Your task to perform on an android device: turn off picture-in-picture Image 0: 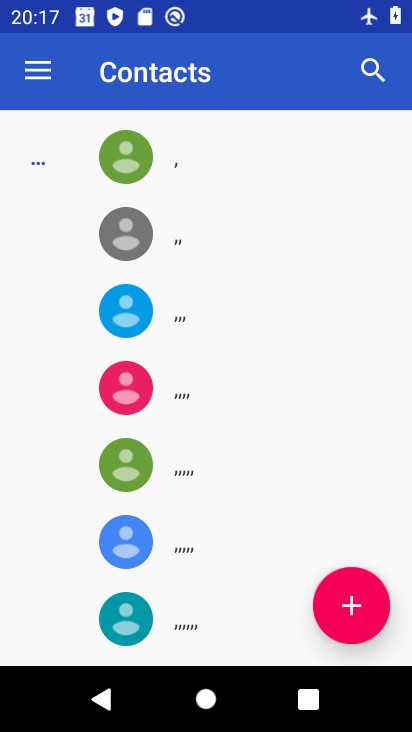
Step 0: press home button
Your task to perform on an android device: turn off picture-in-picture Image 1: 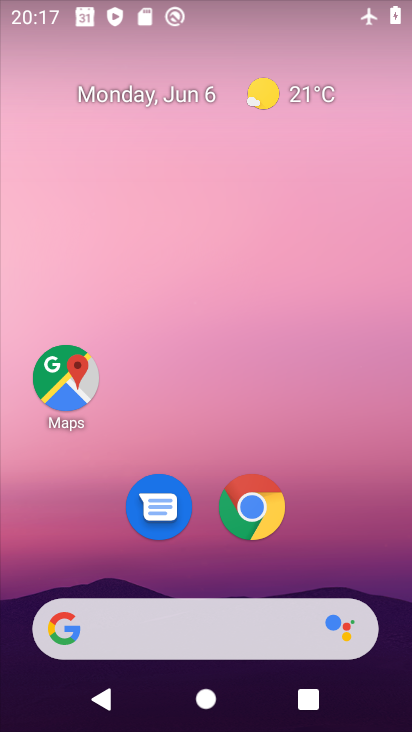
Step 1: drag from (211, 580) to (85, 0)
Your task to perform on an android device: turn off picture-in-picture Image 2: 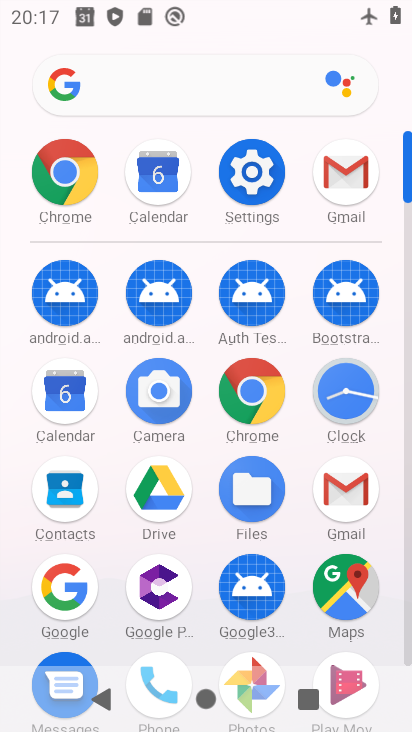
Step 2: click (244, 181)
Your task to perform on an android device: turn off picture-in-picture Image 3: 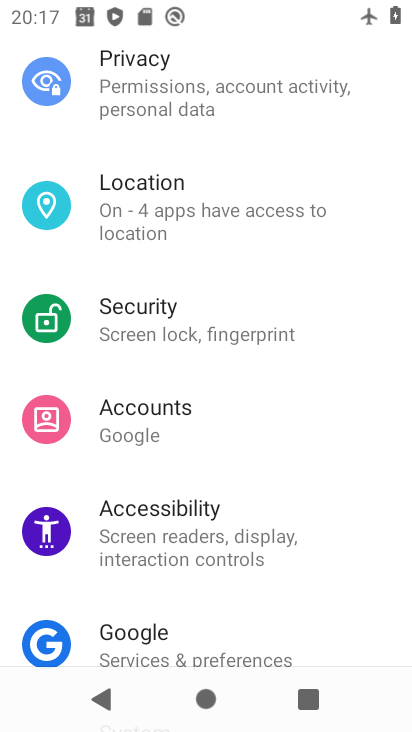
Step 3: drag from (161, 197) to (162, 528)
Your task to perform on an android device: turn off picture-in-picture Image 4: 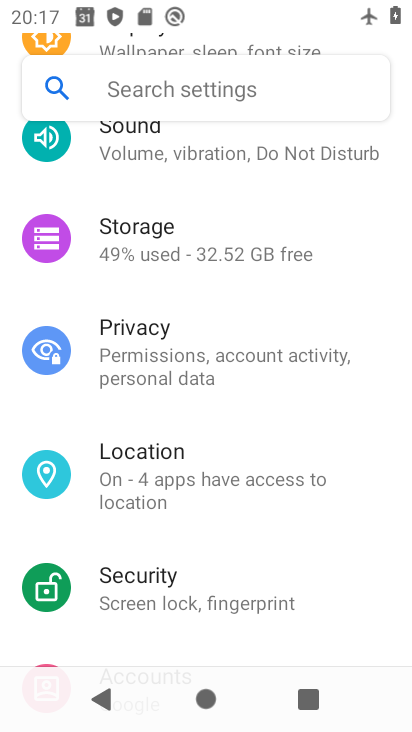
Step 4: drag from (183, 434) to (178, 665)
Your task to perform on an android device: turn off picture-in-picture Image 5: 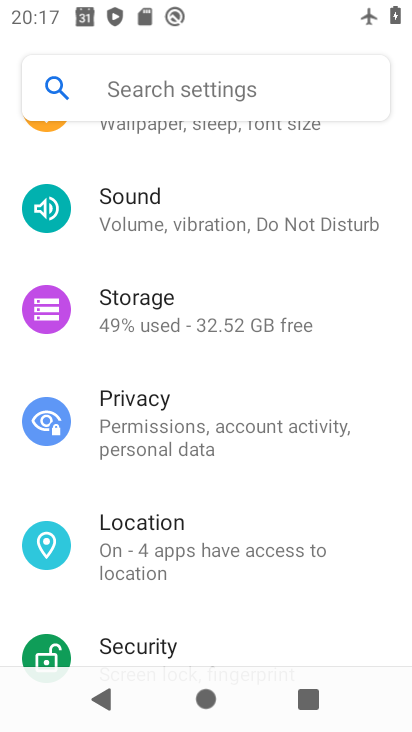
Step 5: drag from (127, 204) to (160, 574)
Your task to perform on an android device: turn off picture-in-picture Image 6: 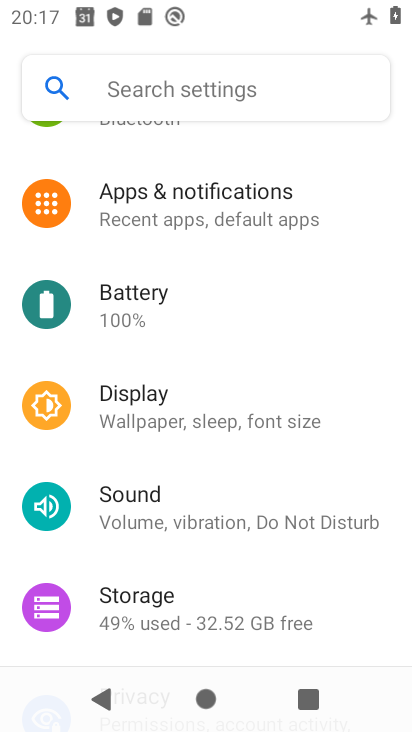
Step 6: drag from (216, 280) to (211, 624)
Your task to perform on an android device: turn off picture-in-picture Image 7: 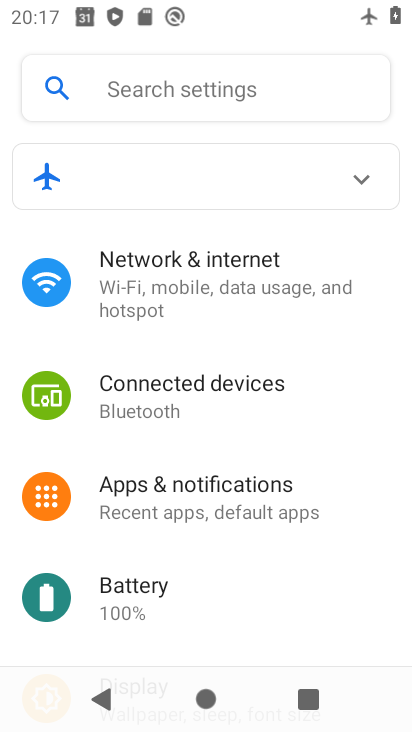
Step 7: drag from (148, 575) to (199, 68)
Your task to perform on an android device: turn off picture-in-picture Image 8: 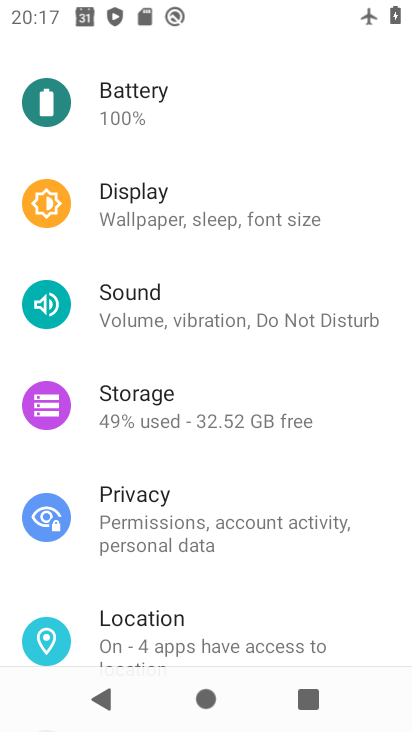
Step 8: drag from (184, 577) to (197, 121)
Your task to perform on an android device: turn off picture-in-picture Image 9: 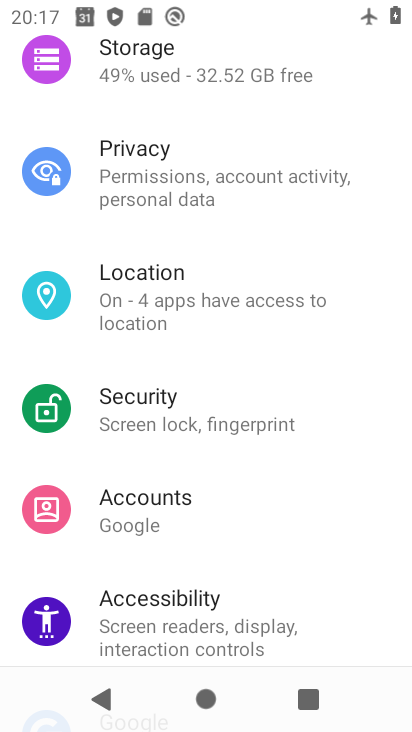
Step 9: drag from (176, 222) to (135, 719)
Your task to perform on an android device: turn off picture-in-picture Image 10: 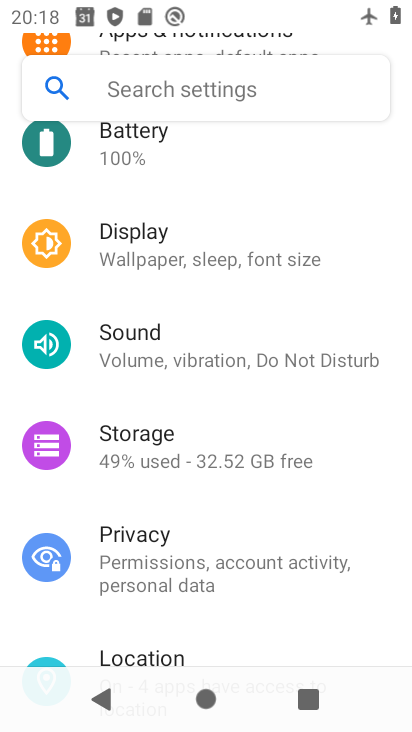
Step 10: drag from (65, 134) to (78, 572)
Your task to perform on an android device: turn off picture-in-picture Image 11: 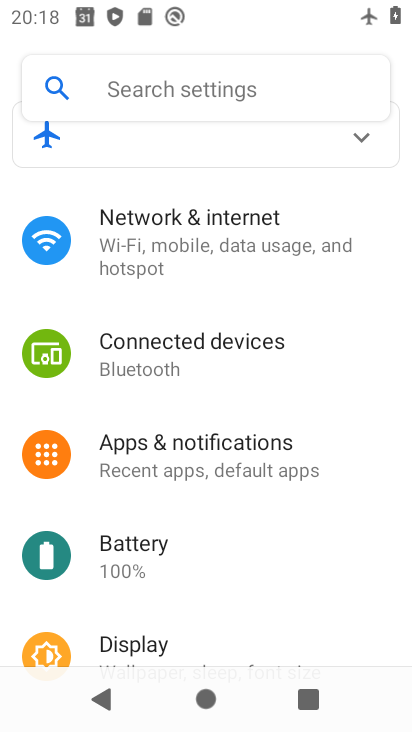
Step 11: click (150, 449)
Your task to perform on an android device: turn off picture-in-picture Image 12: 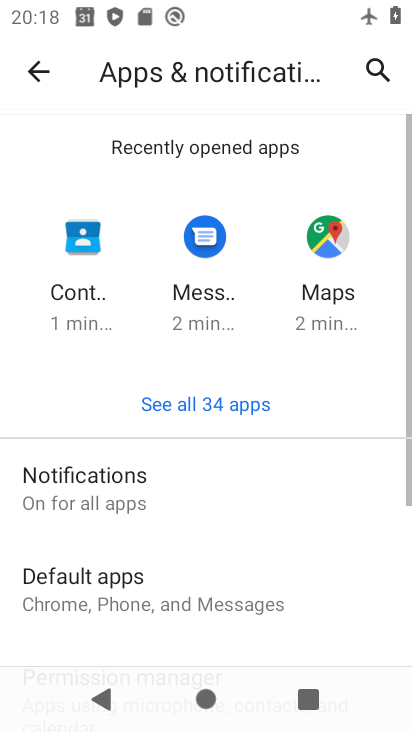
Step 12: drag from (106, 544) to (126, 158)
Your task to perform on an android device: turn off picture-in-picture Image 13: 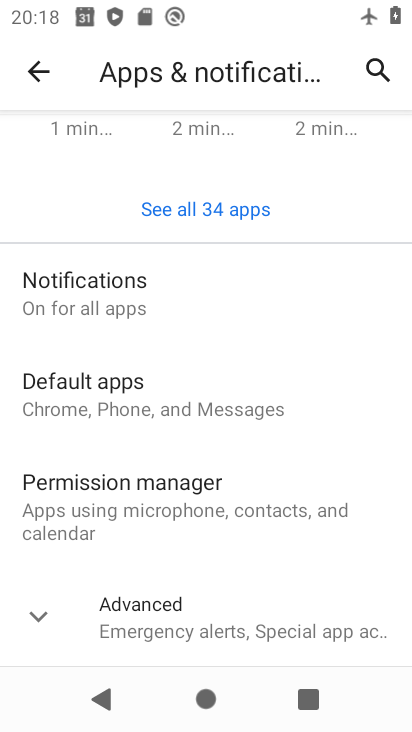
Step 13: click (103, 633)
Your task to perform on an android device: turn off picture-in-picture Image 14: 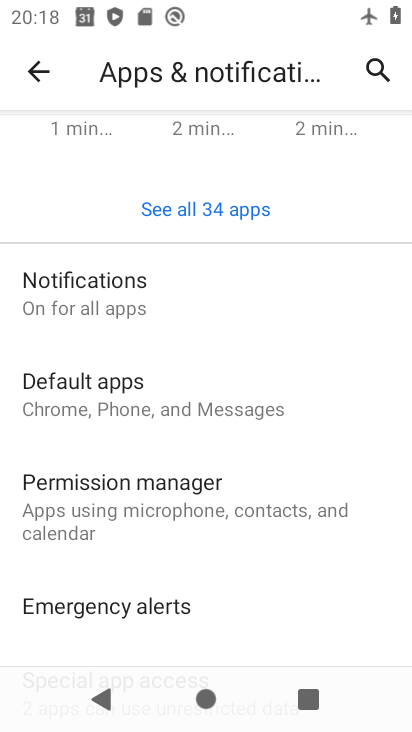
Step 14: drag from (129, 593) to (91, 234)
Your task to perform on an android device: turn off picture-in-picture Image 15: 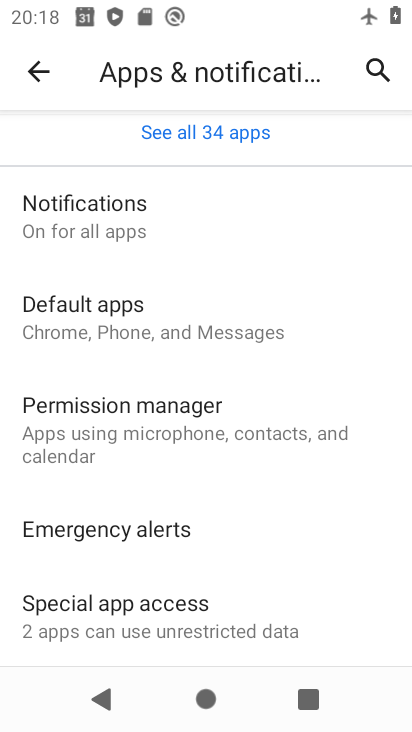
Step 15: click (94, 608)
Your task to perform on an android device: turn off picture-in-picture Image 16: 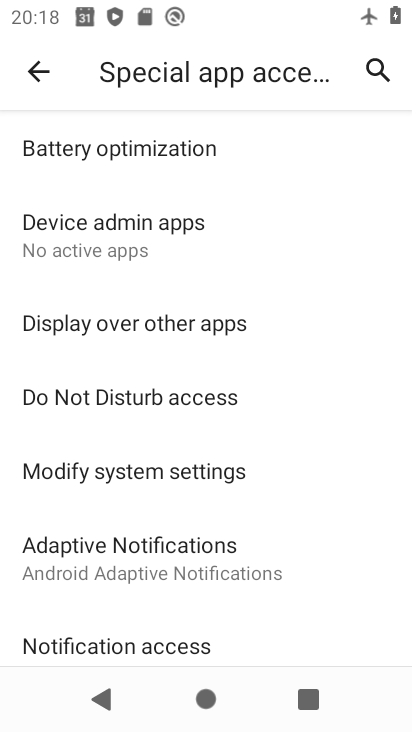
Step 16: drag from (166, 557) to (192, 209)
Your task to perform on an android device: turn off picture-in-picture Image 17: 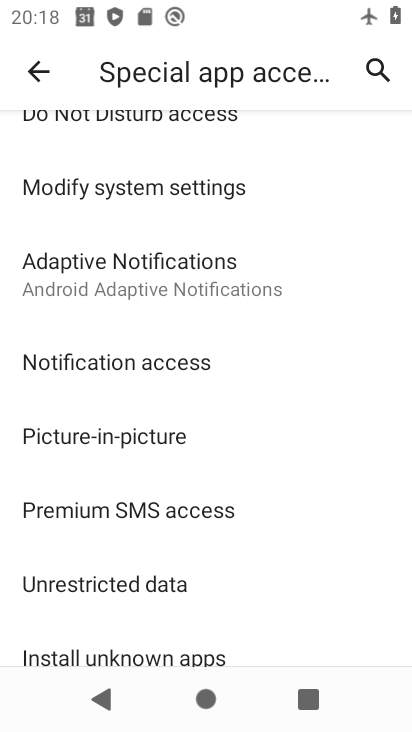
Step 17: click (110, 438)
Your task to perform on an android device: turn off picture-in-picture Image 18: 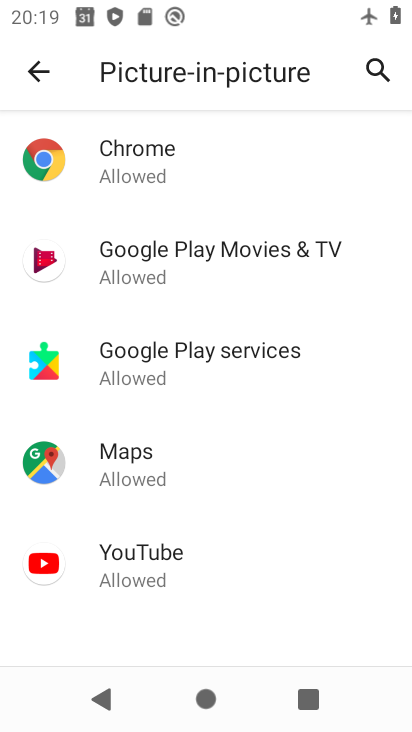
Step 18: click (72, 153)
Your task to perform on an android device: turn off picture-in-picture Image 19: 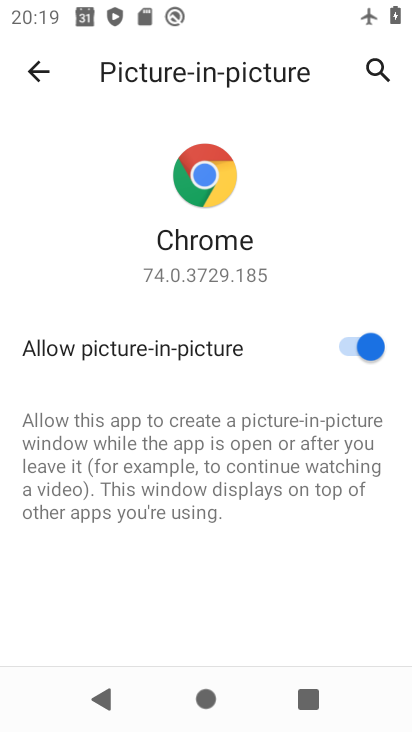
Step 19: click (369, 345)
Your task to perform on an android device: turn off picture-in-picture Image 20: 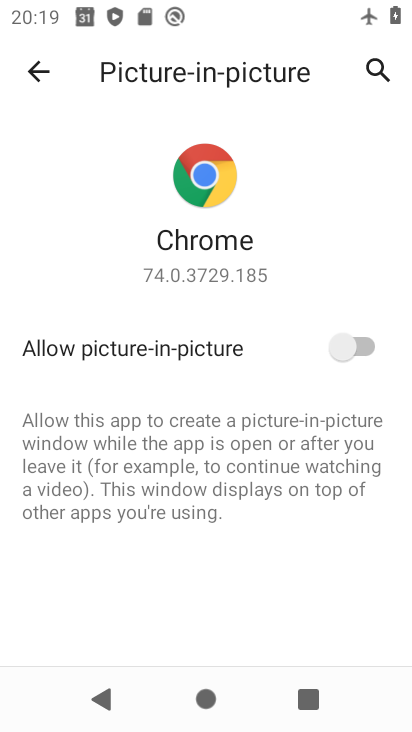
Step 20: task complete